Your task to perform on an android device: open a bookmark in the chrome app Image 0: 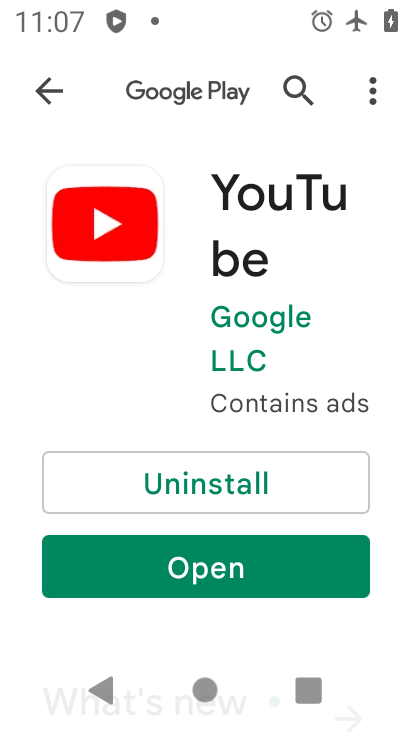
Step 0: press home button
Your task to perform on an android device: open a bookmark in the chrome app Image 1: 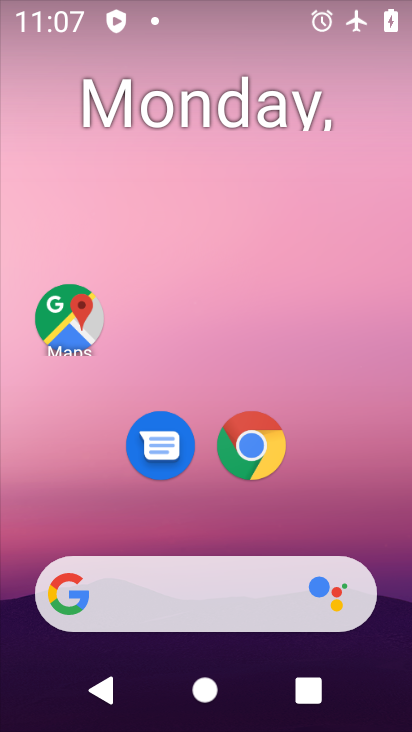
Step 1: click (268, 461)
Your task to perform on an android device: open a bookmark in the chrome app Image 2: 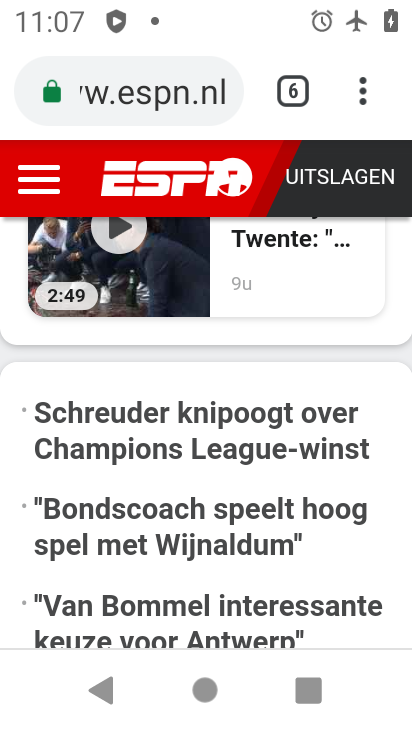
Step 2: click (360, 99)
Your task to perform on an android device: open a bookmark in the chrome app Image 3: 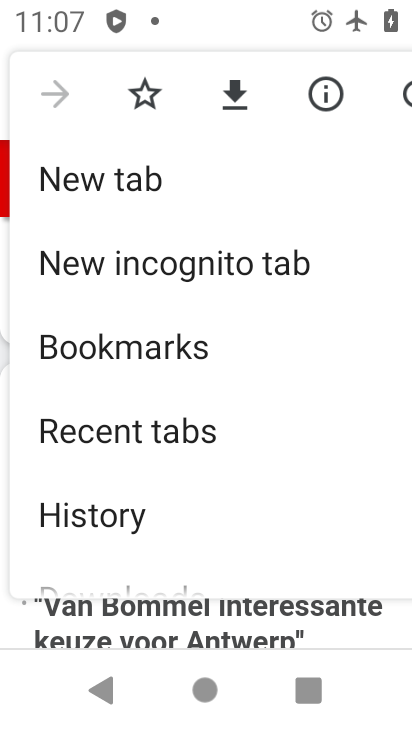
Step 3: click (122, 346)
Your task to perform on an android device: open a bookmark in the chrome app Image 4: 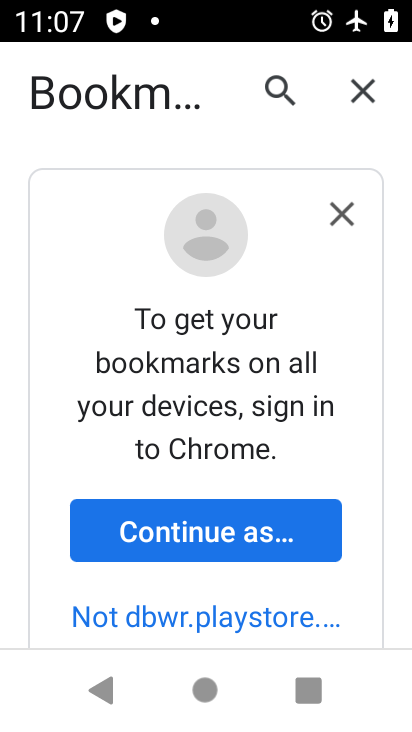
Step 4: drag from (183, 409) to (191, 176)
Your task to perform on an android device: open a bookmark in the chrome app Image 5: 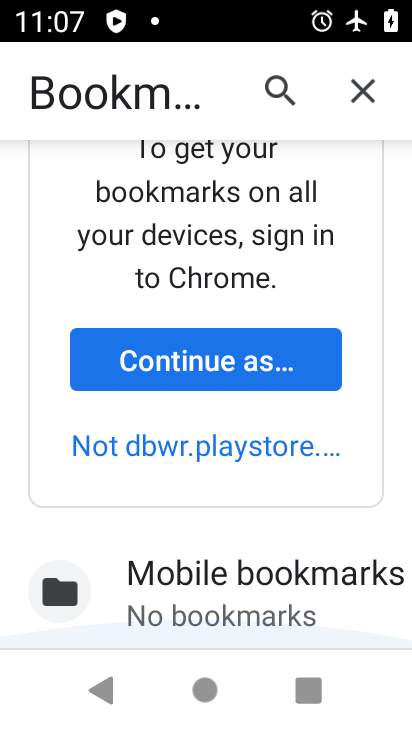
Step 5: click (192, 154)
Your task to perform on an android device: open a bookmark in the chrome app Image 6: 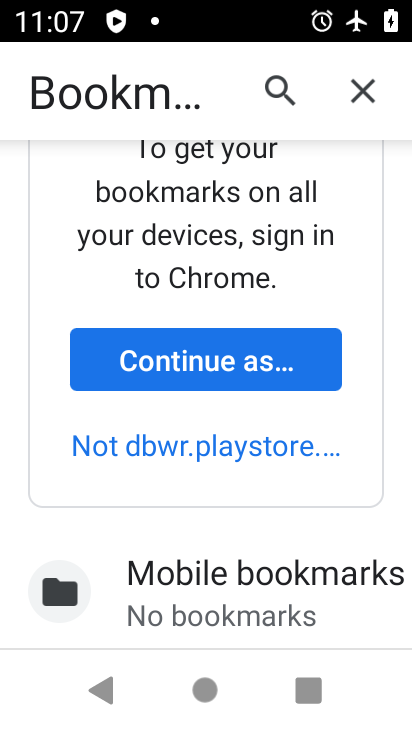
Step 6: drag from (173, 589) to (201, 281)
Your task to perform on an android device: open a bookmark in the chrome app Image 7: 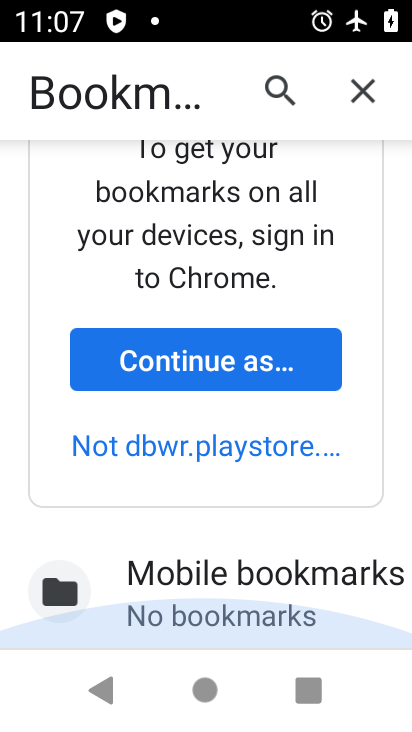
Step 7: click (205, 263)
Your task to perform on an android device: open a bookmark in the chrome app Image 8: 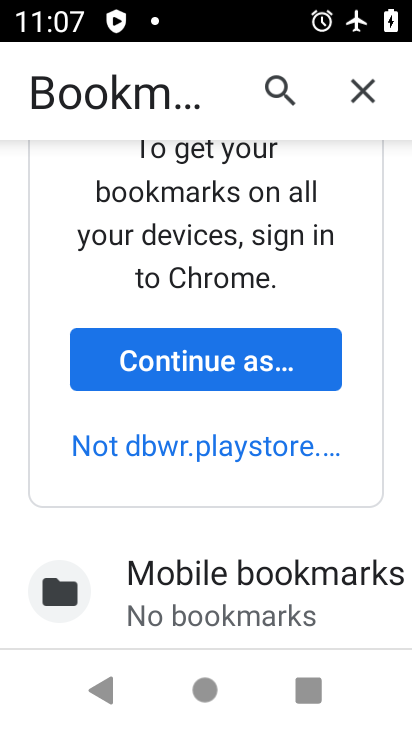
Step 8: task complete